Your task to perform on an android device: open a bookmark in the chrome app Image 0: 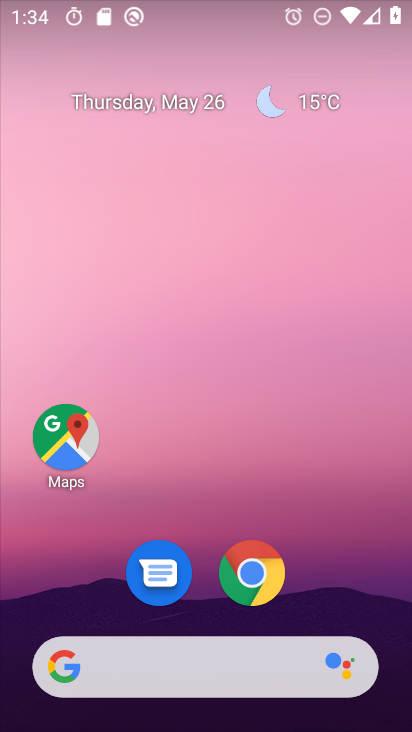
Step 0: click (256, 573)
Your task to perform on an android device: open a bookmark in the chrome app Image 1: 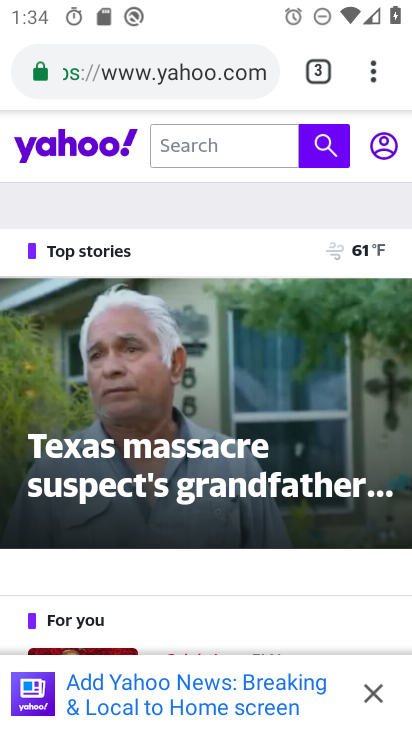
Step 1: click (375, 70)
Your task to perform on an android device: open a bookmark in the chrome app Image 2: 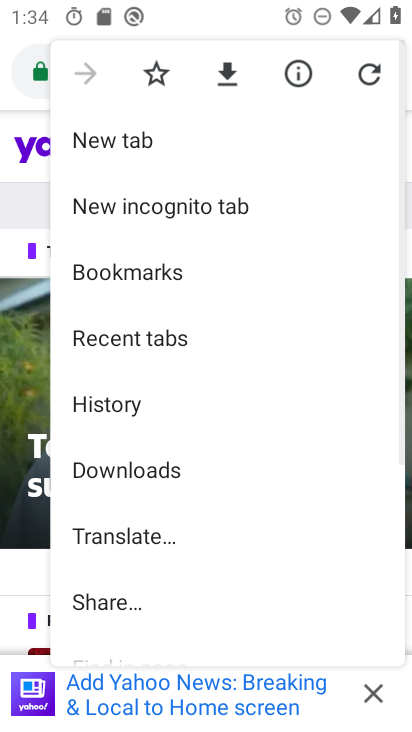
Step 2: click (166, 269)
Your task to perform on an android device: open a bookmark in the chrome app Image 3: 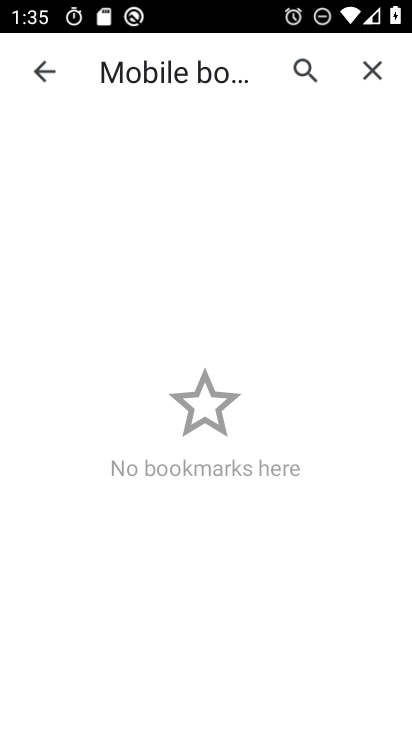
Step 3: task complete